Your task to perform on an android device: toggle wifi Image 0: 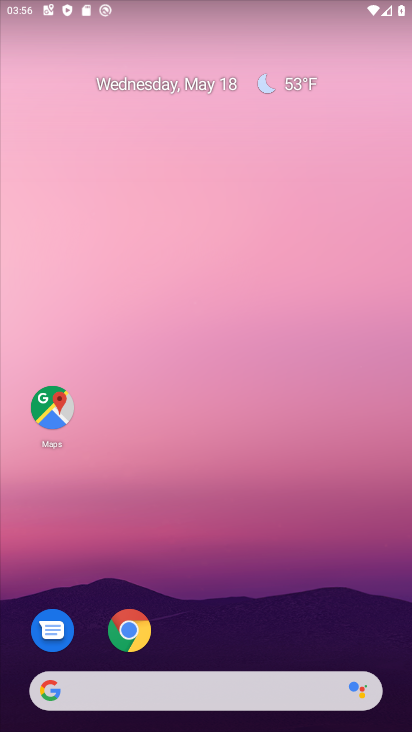
Step 0: drag from (201, 706) to (219, 182)
Your task to perform on an android device: toggle wifi Image 1: 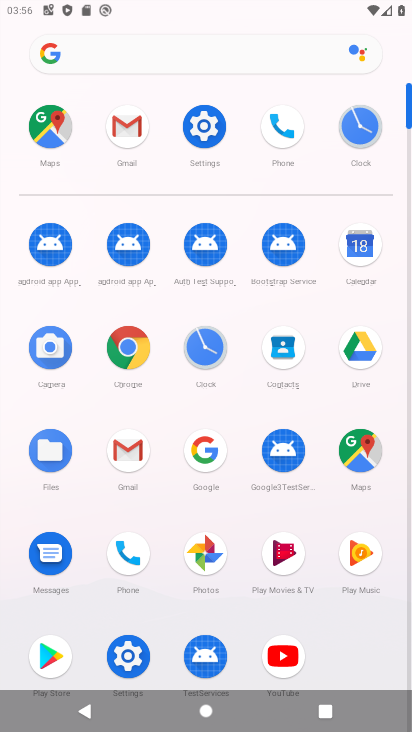
Step 1: click (200, 127)
Your task to perform on an android device: toggle wifi Image 2: 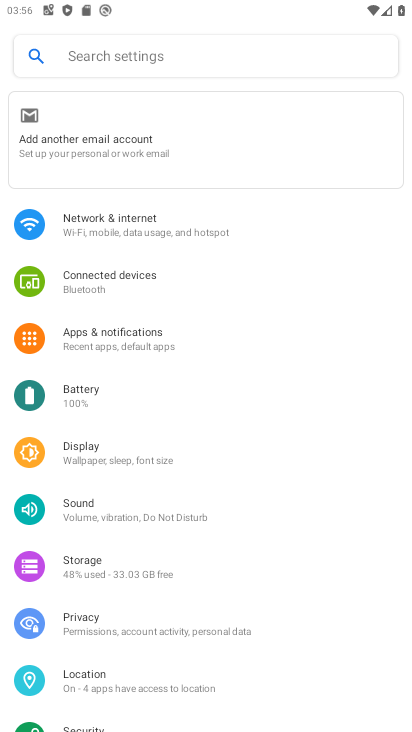
Step 2: click (120, 229)
Your task to perform on an android device: toggle wifi Image 3: 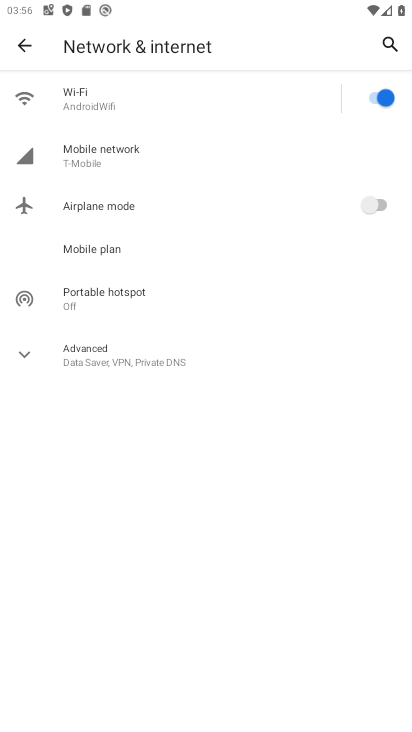
Step 3: click (376, 98)
Your task to perform on an android device: toggle wifi Image 4: 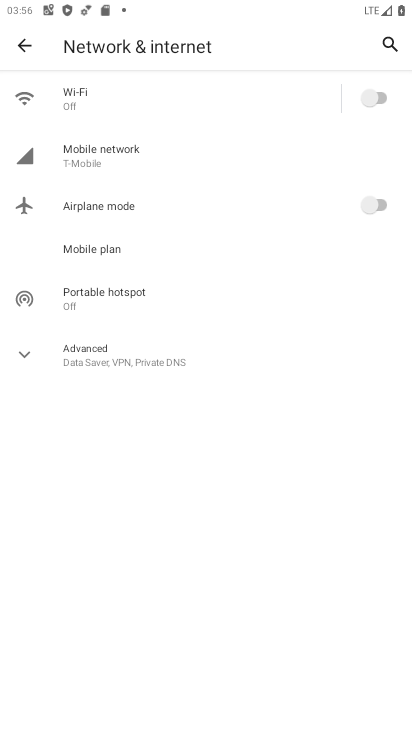
Step 4: task complete